Your task to perform on an android device: find snoozed emails in the gmail app Image 0: 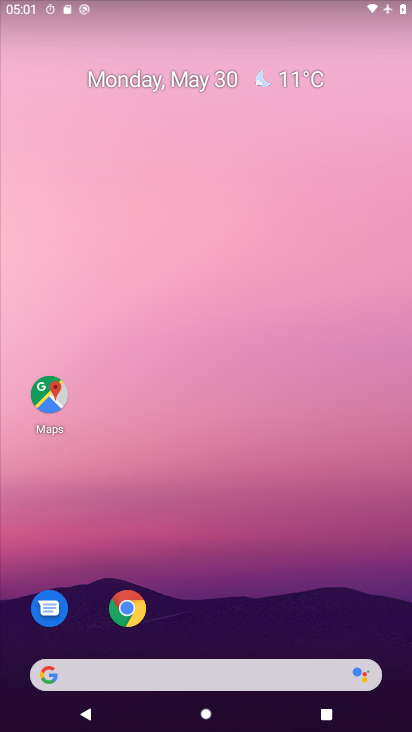
Step 0: drag from (319, 463) to (244, 3)
Your task to perform on an android device: find snoozed emails in the gmail app Image 1: 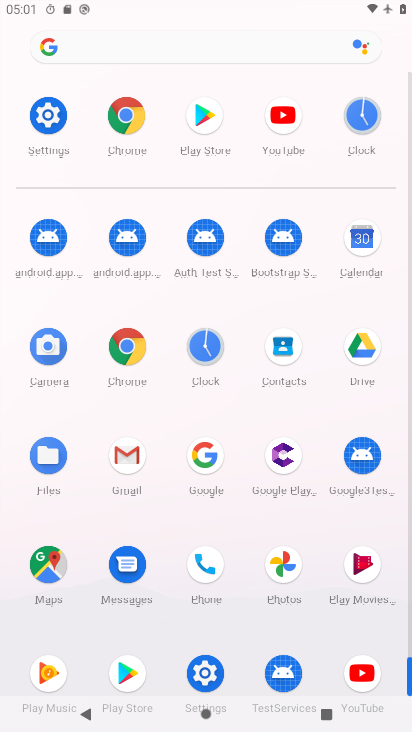
Step 1: click (115, 455)
Your task to perform on an android device: find snoozed emails in the gmail app Image 2: 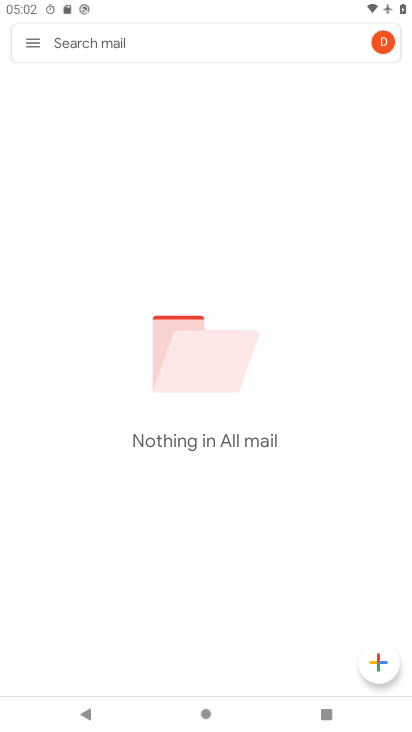
Step 2: click (38, 39)
Your task to perform on an android device: find snoozed emails in the gmail app Image 3: 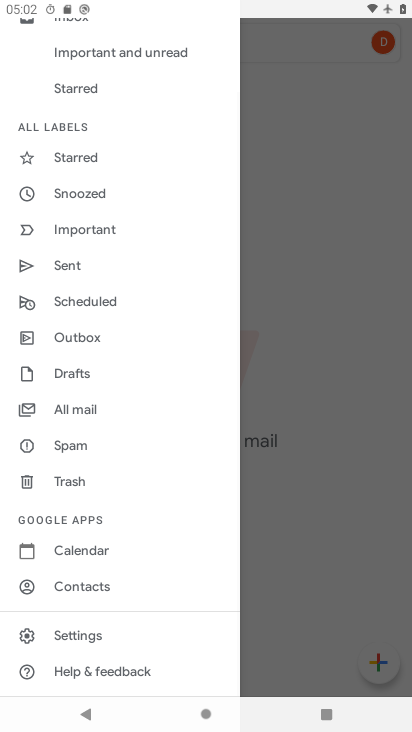
Step 3: click (119, 198)
Your task to perform on an android device: find snoozed emails in the gmail app Image 4: 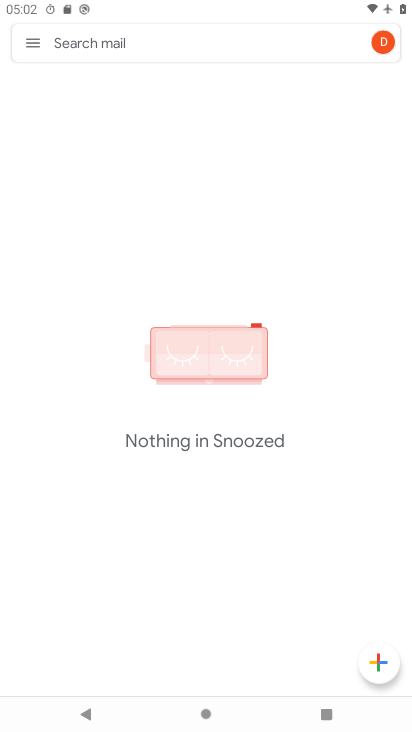
Step 4: task complete